Your task to perform on an android device: Go to Google maps Image 0: 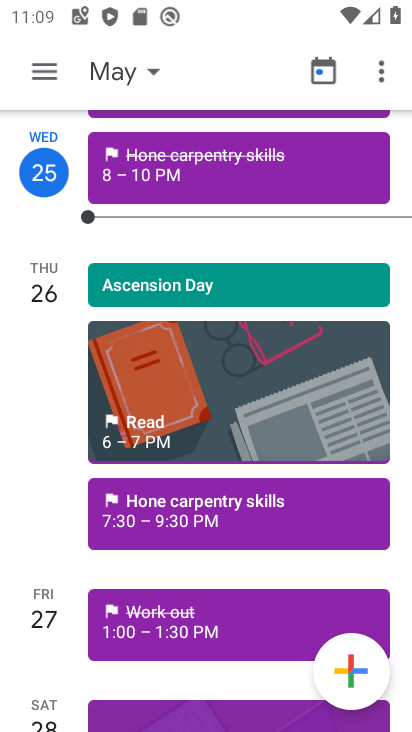
Step 0: click (224, 480)
Your task to perform on an android device: Go to Google maps Image 1: 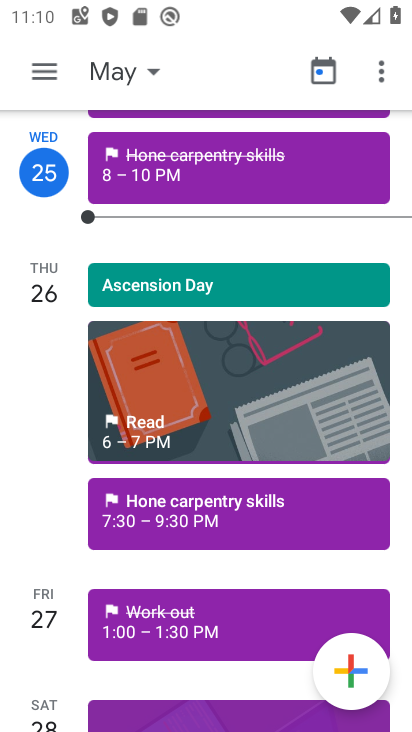
Step 1: press home button
Your task to perform on an android device: Go to Google maps Image 2: 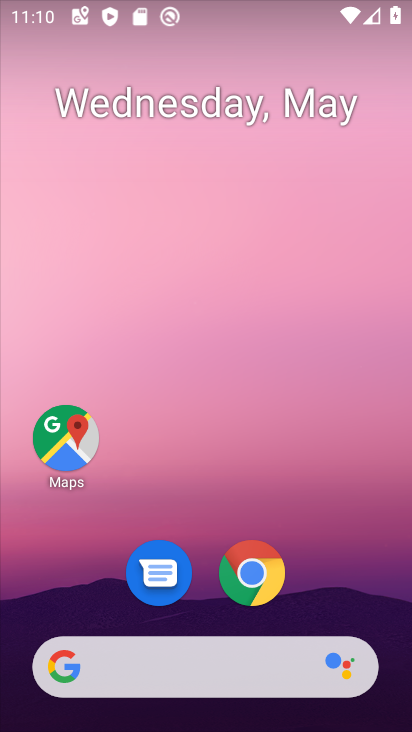
Step 2: click (52, 448)
Your task to perform on an android device: Go to Google maps Image 3: 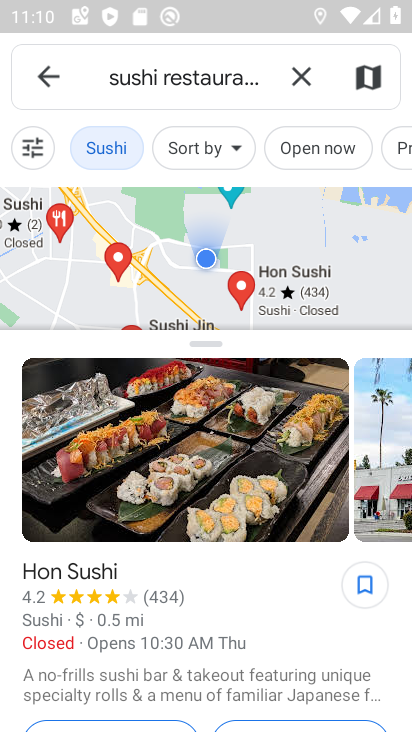
Step 3: click (298, 74)
Your task to perform on an android device: Go to Google maps Image 4: 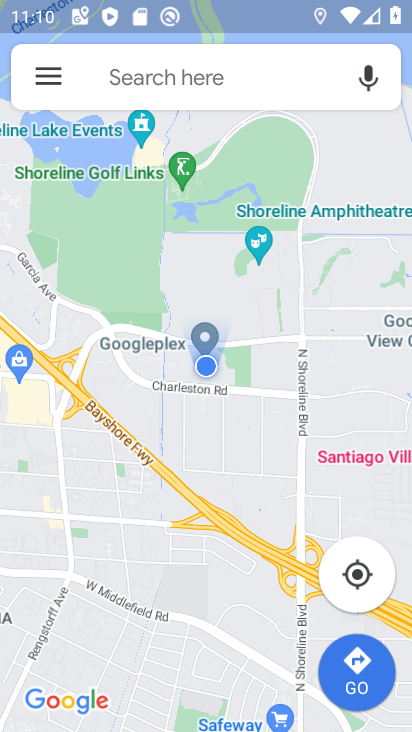
Step 4: task complete